Your task to perform on an android device: open a new tab in the chrome app Image 0: 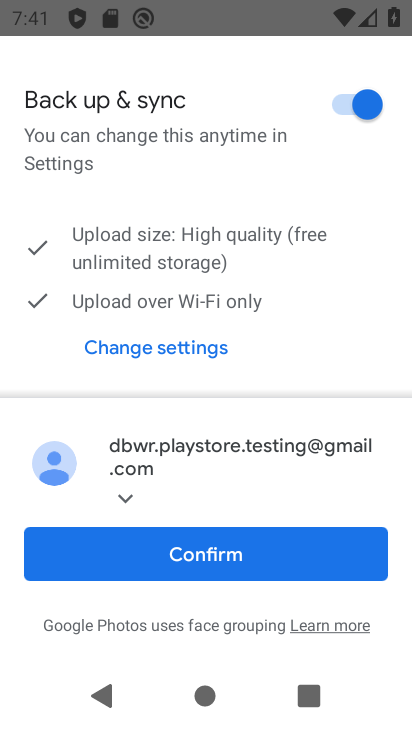
Step 0: press home button
Your task to perform on an android device: open a new tab in the chrome app Image 1: 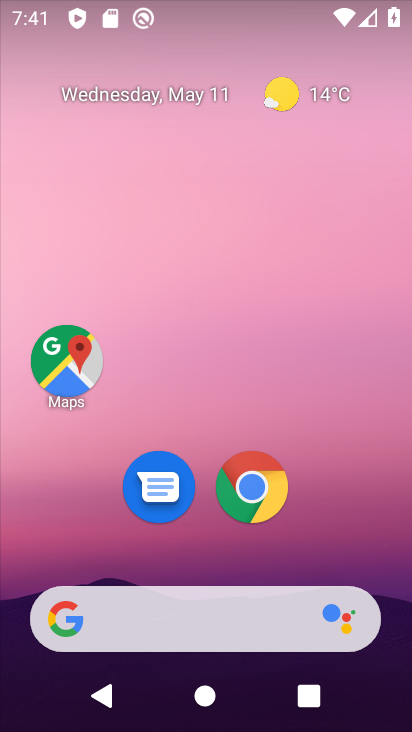
Step 1: click (262, 483)
Your task to perform on an android device: open a new tab in the chrome app Image 2: 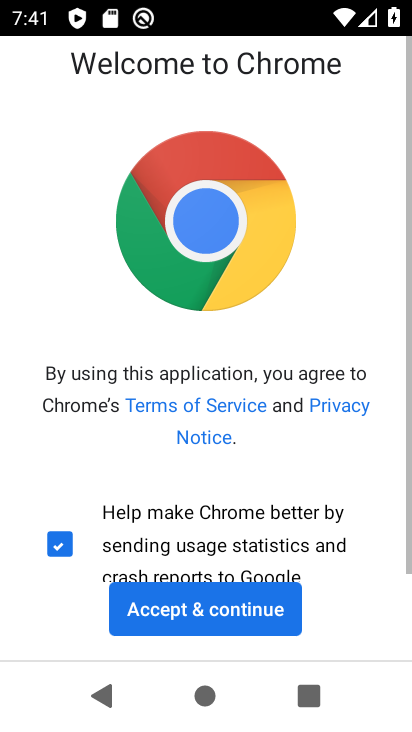
Step 2: click (253, 496)
Your task to perform on an android device: open a new tab in the chrome app Image 3: 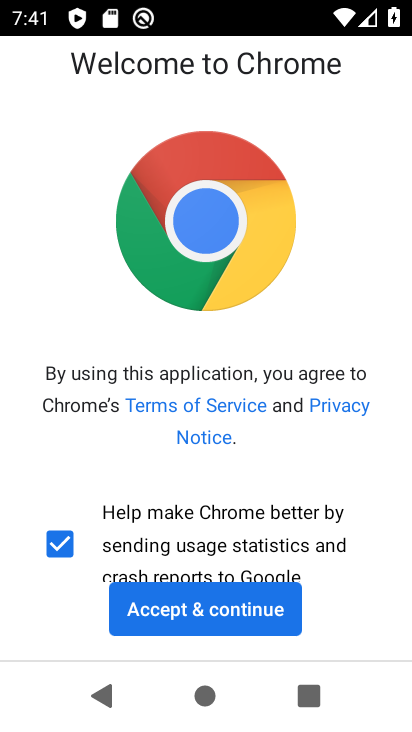
Step 3: click (224, 624)
Your task to perform on an android device: open a new tab in the chrome app Image 4: 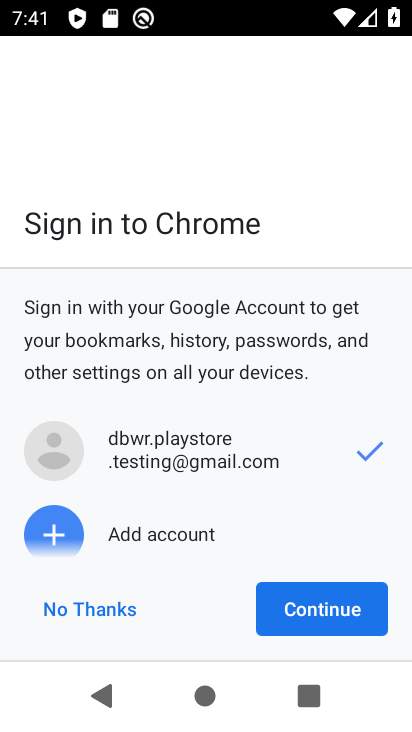
Step 4: click (308, 602)
Your task to perform on an android device: open a new tab in the chrome app Image 5: 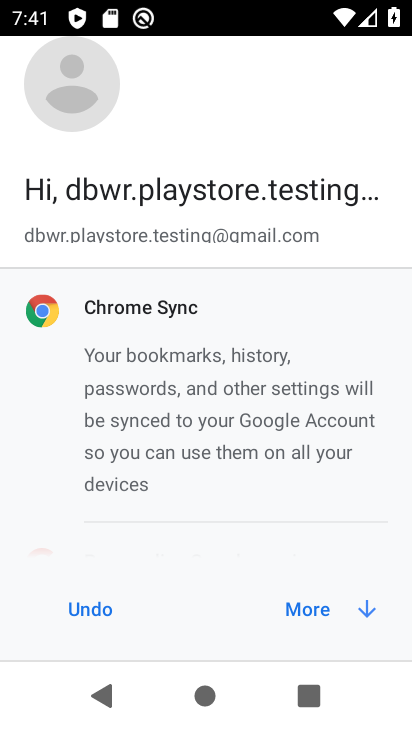
Step 5: click (308, 601)
Your task to perform on an android device: open a new tab in the chrome app Image 6: 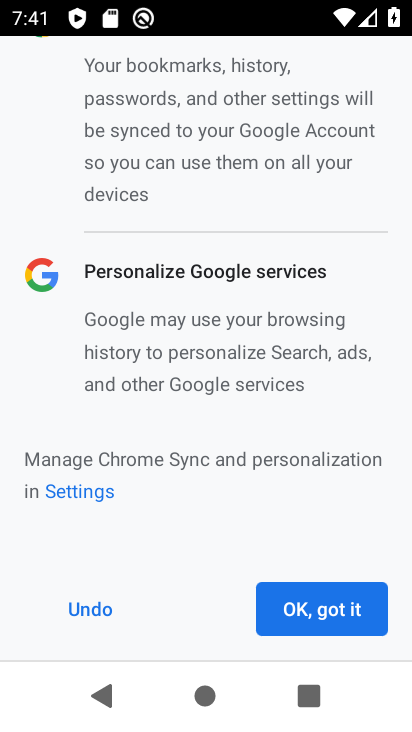
Step 6: click (308, 601)
Your task to perform on an android device: open a new tab in the chrome app Image 7: 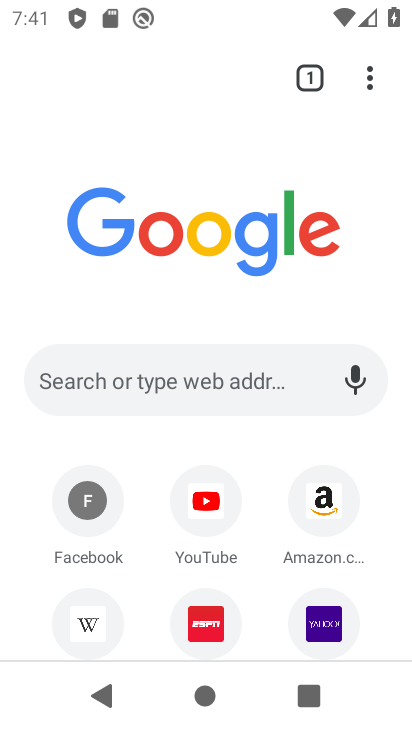
Step 7: click (371, 79)
Your task to perform on an android device: open a new tab in the chrome app Image 8: 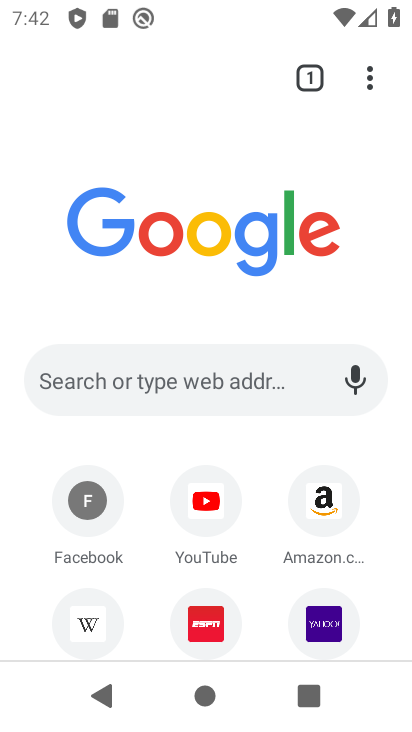
Step 8: click (371, 79)
Your task to perform on an android device: open a new tab in the chrome app Image 9: 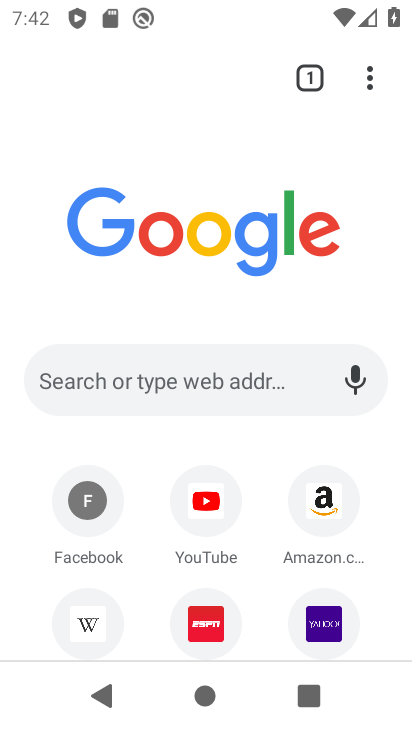
Step 9: click (371, 79)
Your task to perform on an android device: open a new tab in the chrome app Image 10: 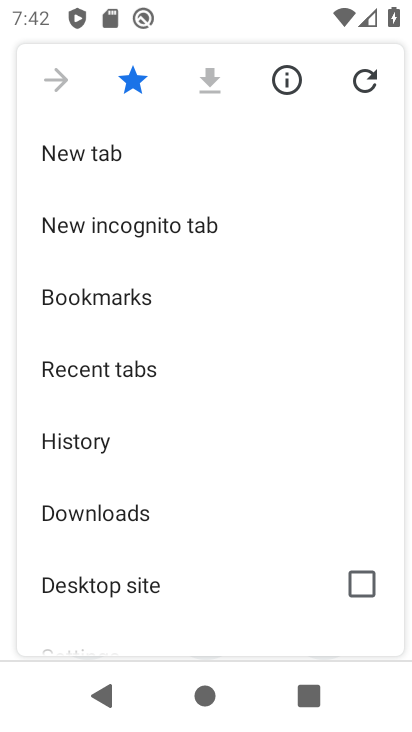
Step 10: click (89, 159)
Your task to perform on an android device: open a new tab in the chrome app Image 11: 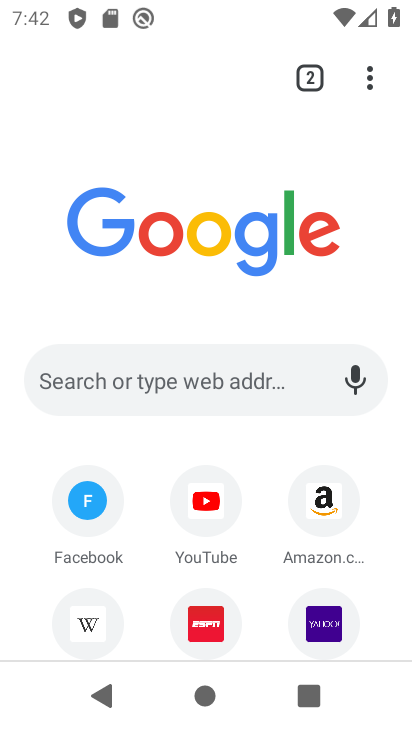
Step 11: task complete